Your task to perform on an android device: toggle sleep mode Image 0: 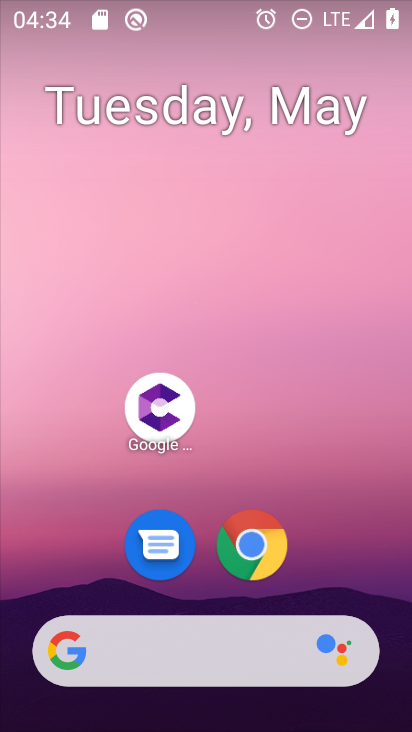
Step 0: drag from (385, 581) to (369, 209)
Your task to perform on an android device: toggle sleep mode Image 1: 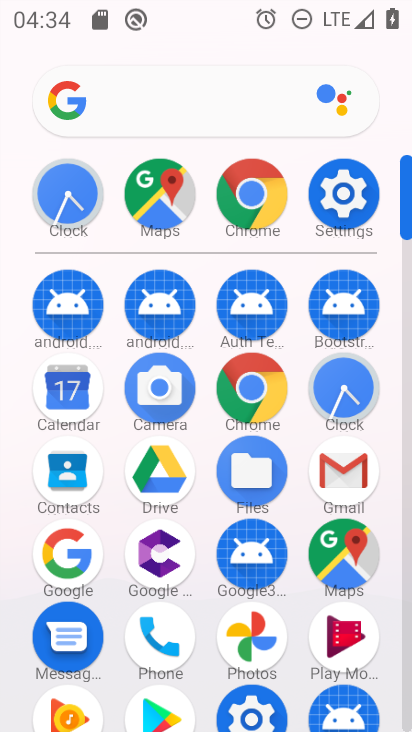
Step 1: click (353, 203)
Your task to perform on an android device: toggle sleep mode Image 2: 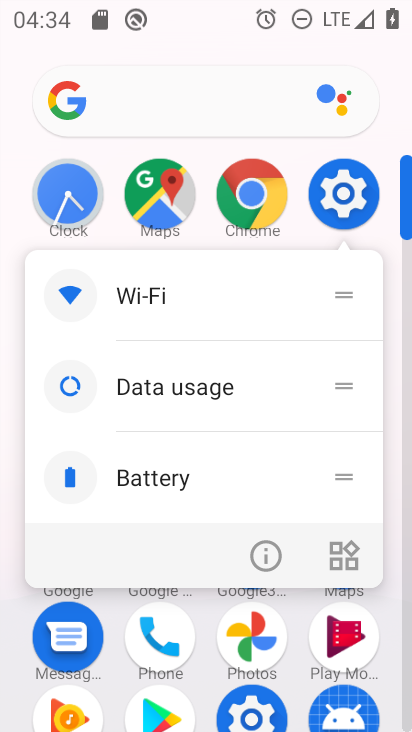
Step 2: click (353, 203)
Your task to perform on an android device: toggle sleep mode Image 3: 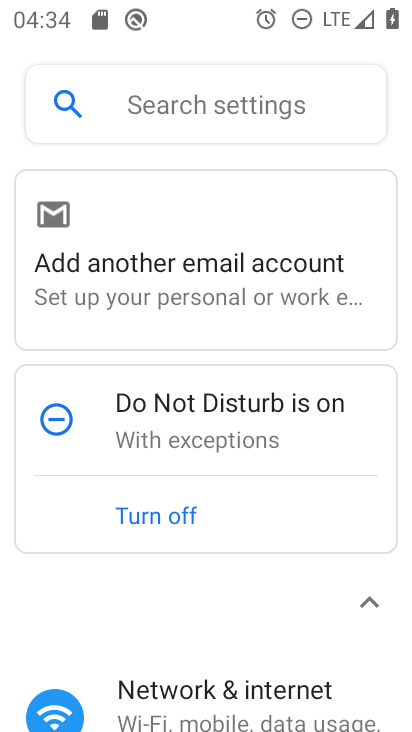
Step 3: drag from (315, 602) to (324, 491)
Your task to perform on an android device: toggle sleep mode Image 4: 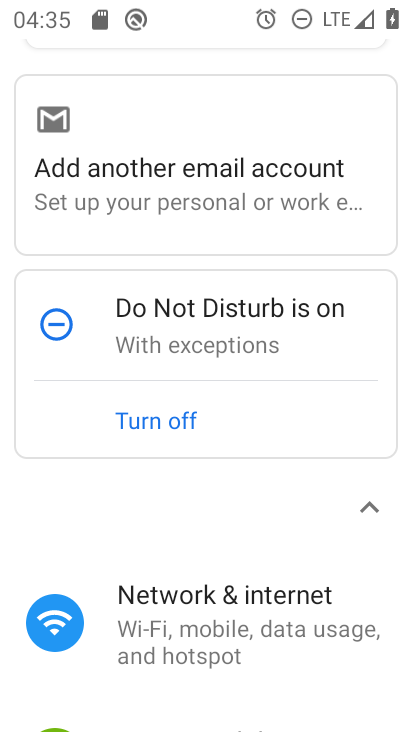
Step 4: drag from (323, 675) to (325, 510)
Your task to perform on an android device: toggle sleep mode Image 5: 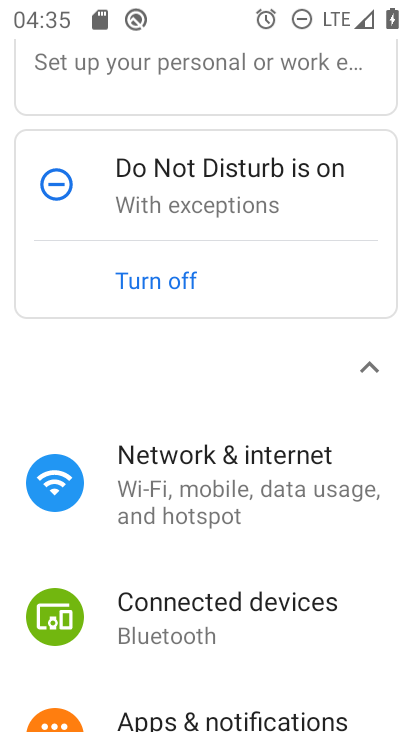
Step 5: drag from (317, 642) to (317, 498)
Your task to perform on an android device: toggle sleep mode Image 6: 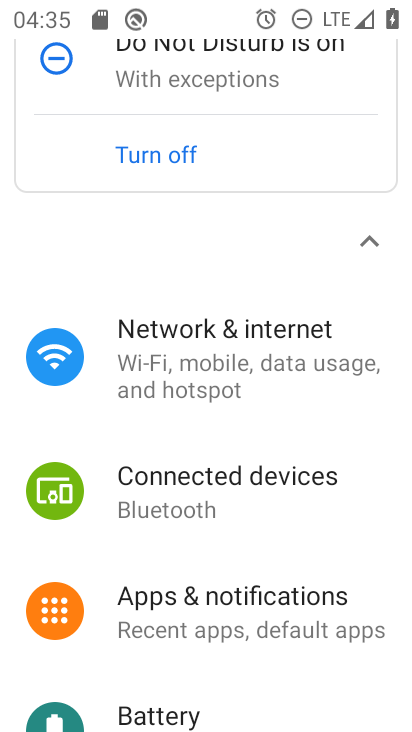
Step 6: drag from (307, 678) to (303, 502)
Your task to perform on an android device: toggle sleep mode Image 7: 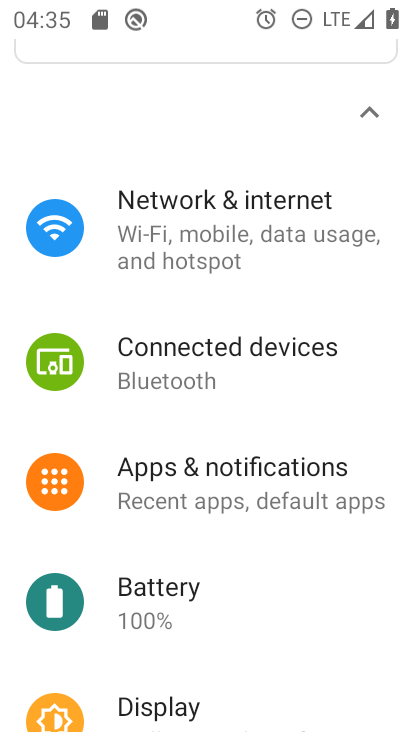
Step 7: drag from (294, 659) to (297, 490)
Your task to perform on an android device: toggle sleep mode Image 8: 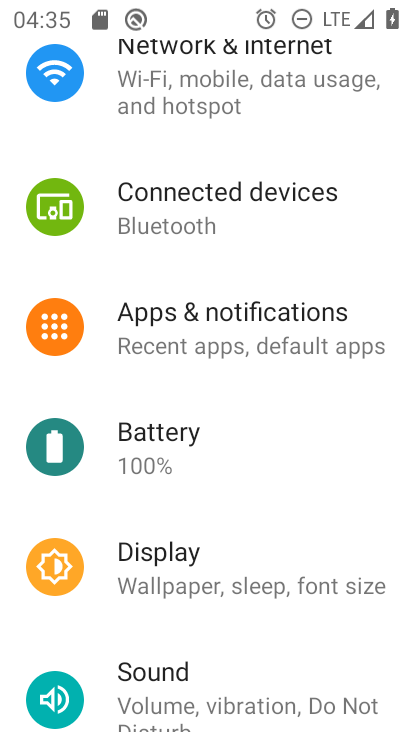
Step 8: drag from (293, 663) to (296, 489)
Your task to perform on an android device: toggle sleep mode Image 9: 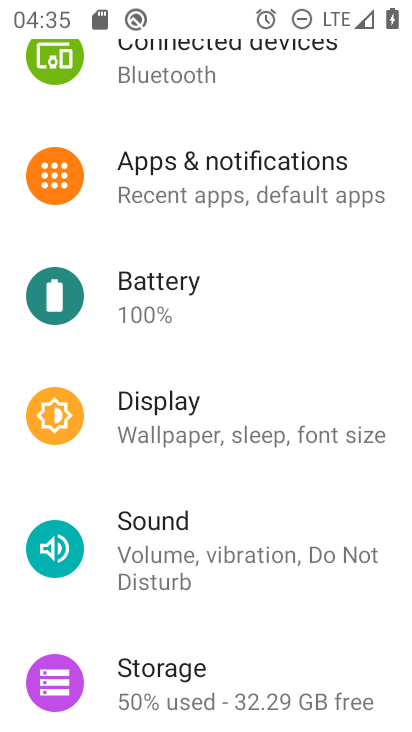
Step 9: click (302, 445)
Your task to perform on an android device: toggle sleep mode Image 10: 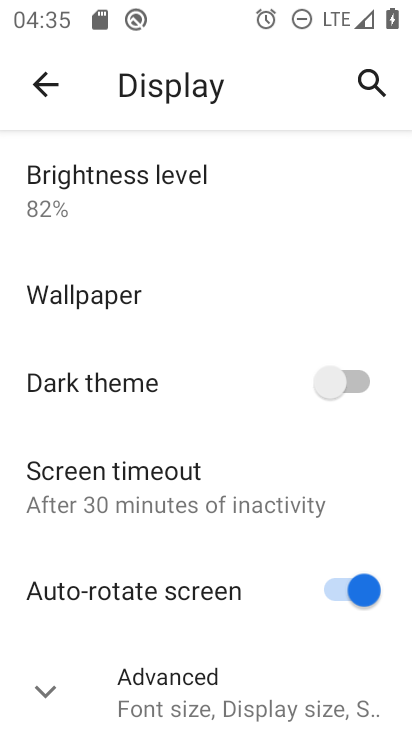
Step 10: click (202, 674)
Your task to perform on an android device: toggle sleep mode Image 11: 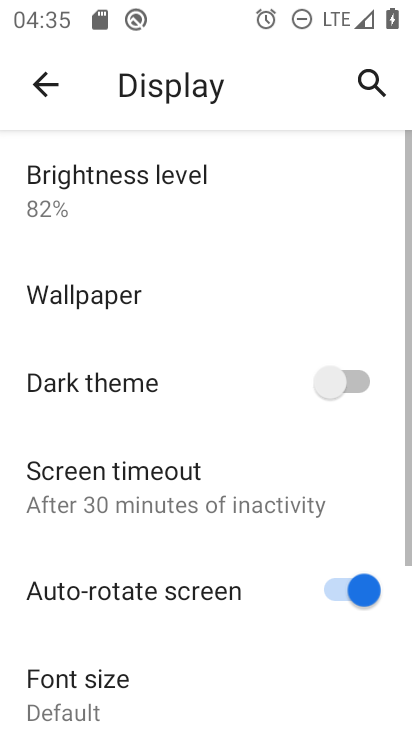
Step 11: task complete